Your task to perform on an android device: check data usage Image 0: 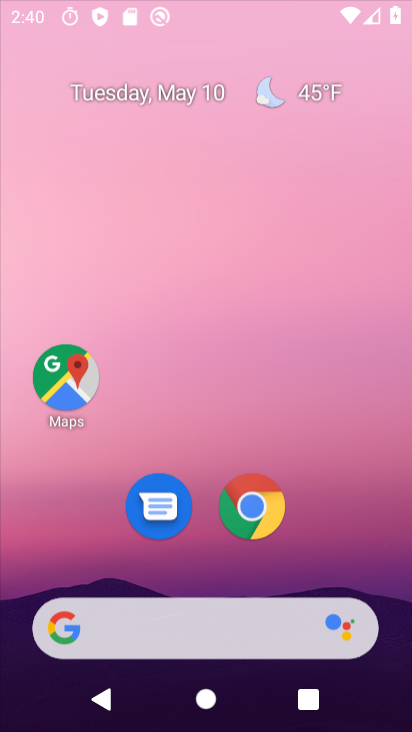
Step 0: click (261, 502)
Your task to perform on an android device: check data usage Image 1: 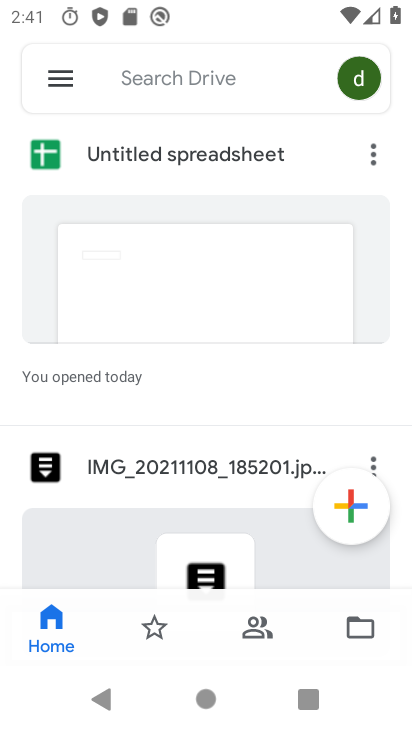
Step 1: press home button
Your task to perform on an android device: check data usage Image 2: 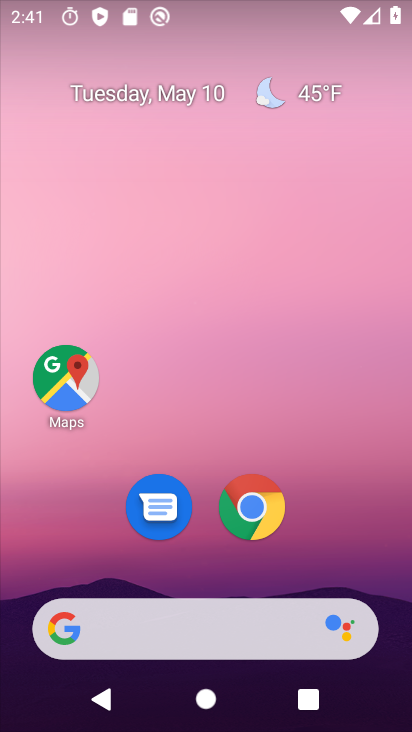
Step 2: drag from (214, 592) to (213, 153)
Your task to perform on an android device: check data usage Image 3: 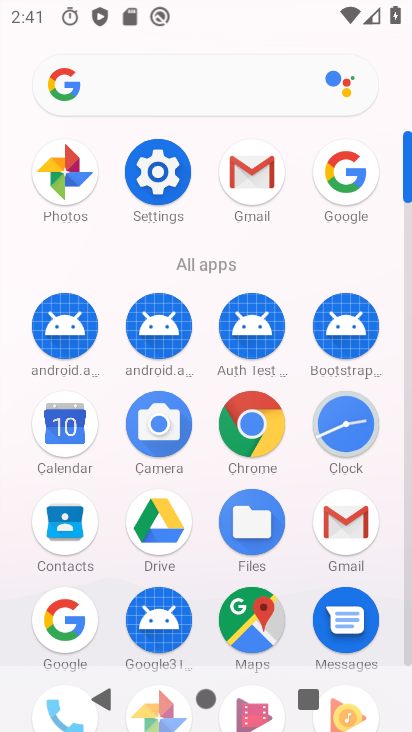
Step 3: click (154, 185)
Your task to perform on an android device: check data usage Image 4: 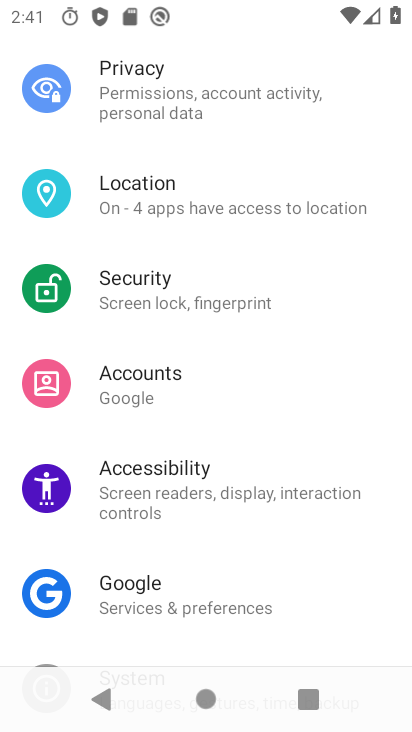
Step 4: drag from (191, 82) to (179, 514)
Your task to perform on an android device: check data usage Image 5: 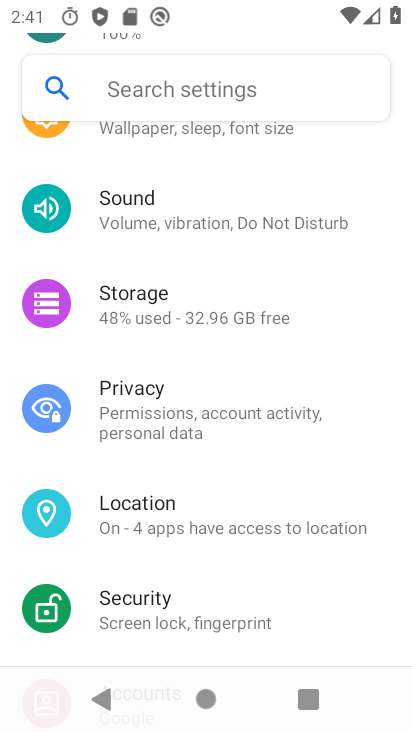
Step 5: drag from (207, 162) to (191, 577)
Your task to perform on an android device: check data usage Image 6: 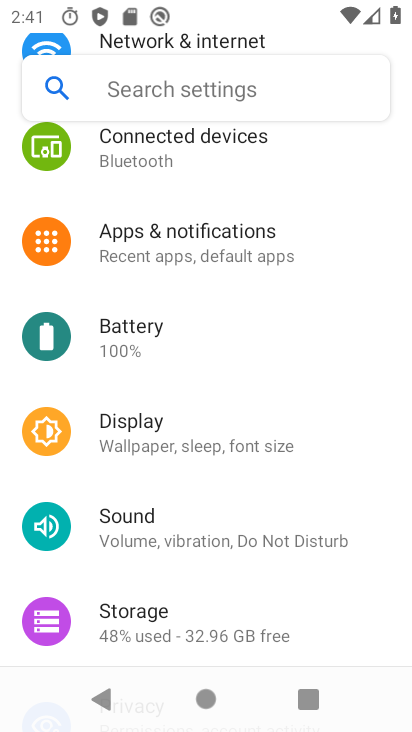
Step 6: drag from (238, 166) to (202, 552)
Your task to perform on an android device: check data usage Image 7: 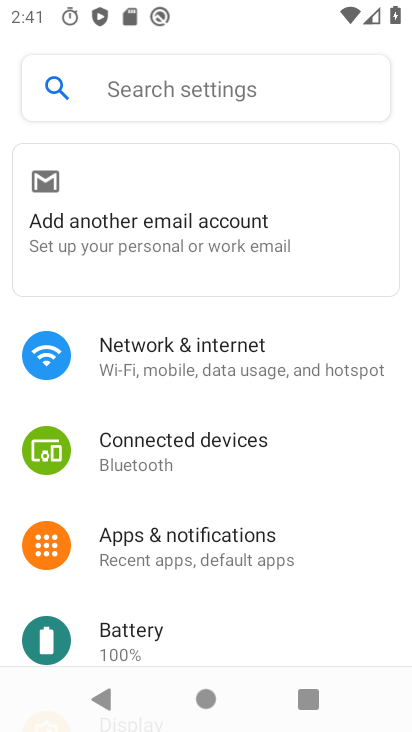
Step 7: click (178, 363)
Your task to perform on an android device: check data usage Image 8: 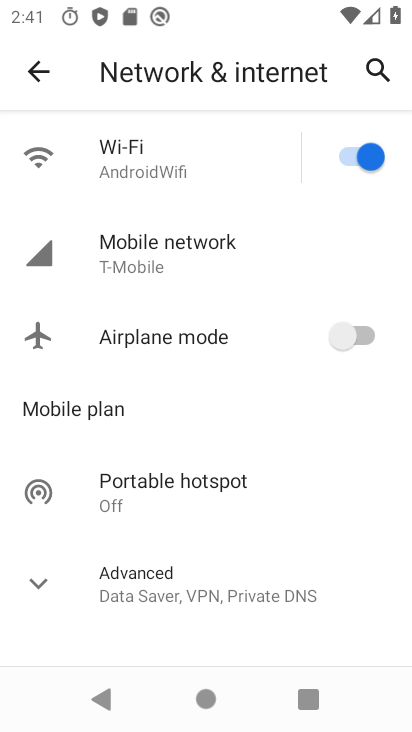
Step 8: click (140, 240)
Your task to perform on an android device: check data usage Image 9: 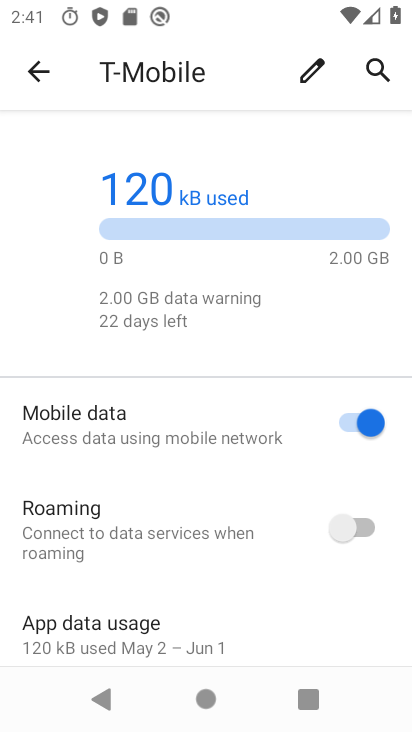
Step 9: task complete